Your task to perform on an android device: turn on priority inbox in the gmail app Image 0: 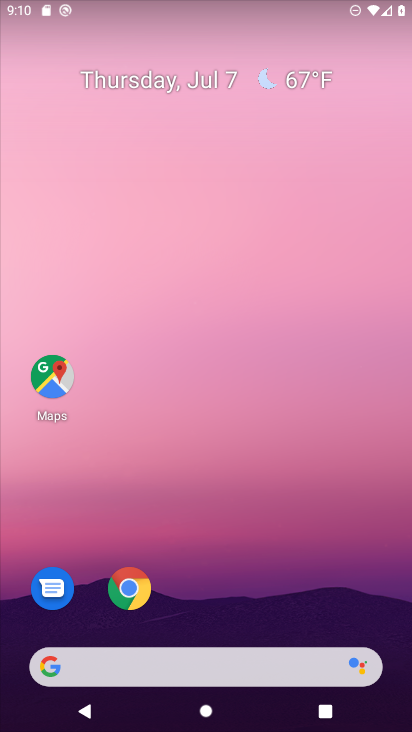
Step 0: drag from (248, 551) to (233, 24)
Your task to perform on an android device: turn on priority inbox in the gmail app Image 1: 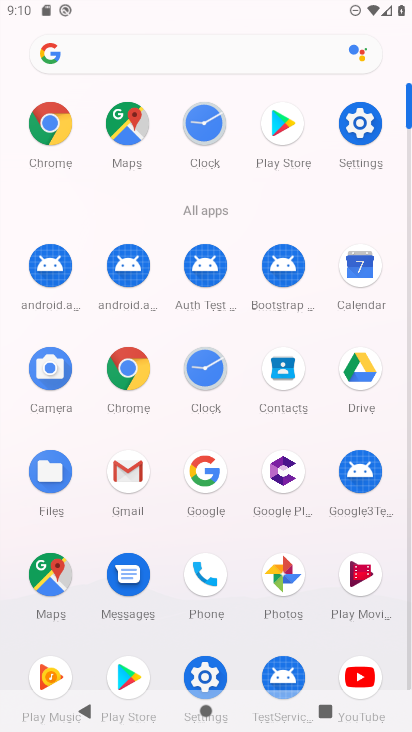
Step 1: click (125, 472)
Your task to perform on an android device: turn on priority inbox in the gmail app Image 2: 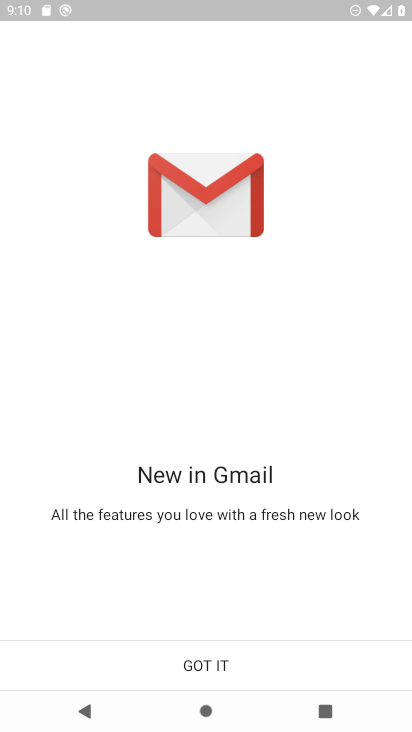
Step 2: click (201, 661)
Your task to perform on an android device: turn on priority inbox in the gmail app Image 3: 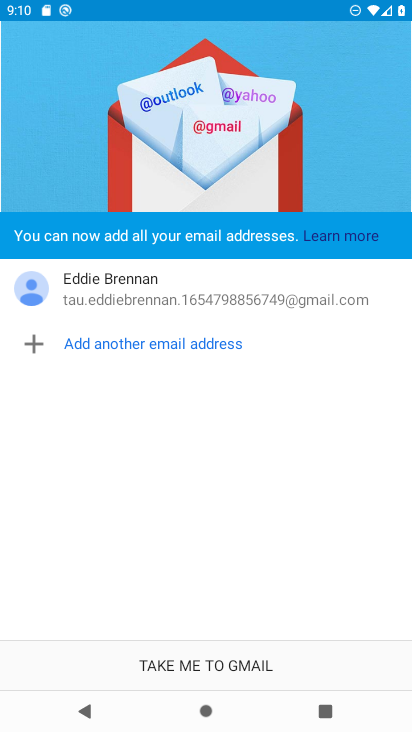
Step 3: click (186, 665)
Your task to perform on an android device: turn on priority inbox in the gmail app Image 4: 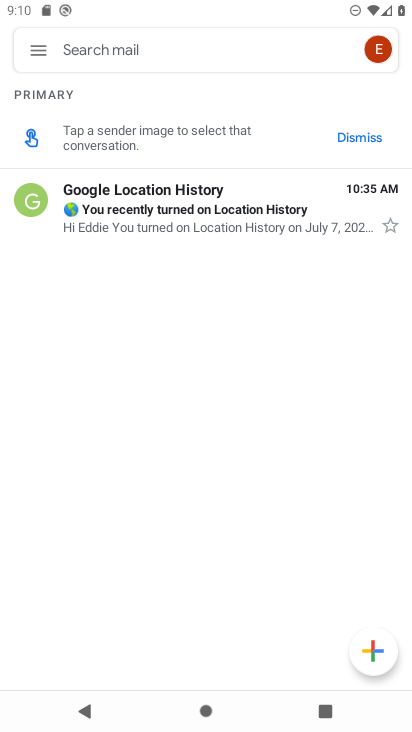
Step 4: click (45, 49)
Your task to perform on an android device: turn on priority inbox in the gmail app Image 5: 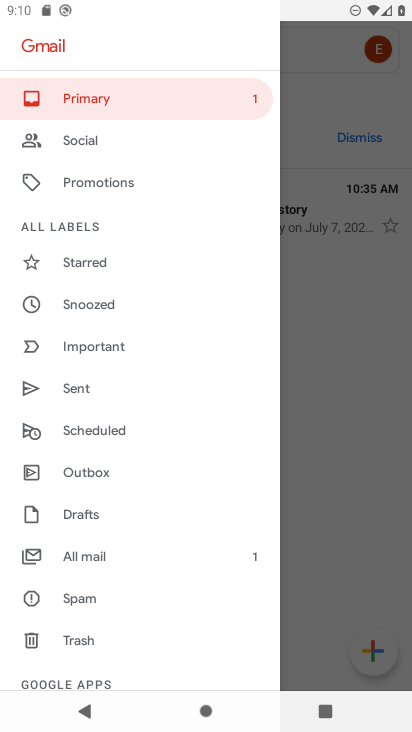
Step 5: drag from (77, 501) to (124, 386)
Your task to perform on an android device: turn on priority inbox in the gmail app Image 6: 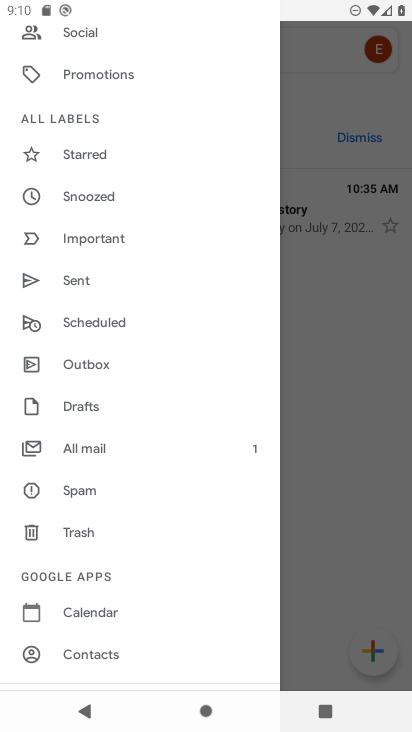
Step 6: drag from (110, 548) to (162, 423)
Your task to perform on an android device: turn on priority inbox in the gmail app Image 7: 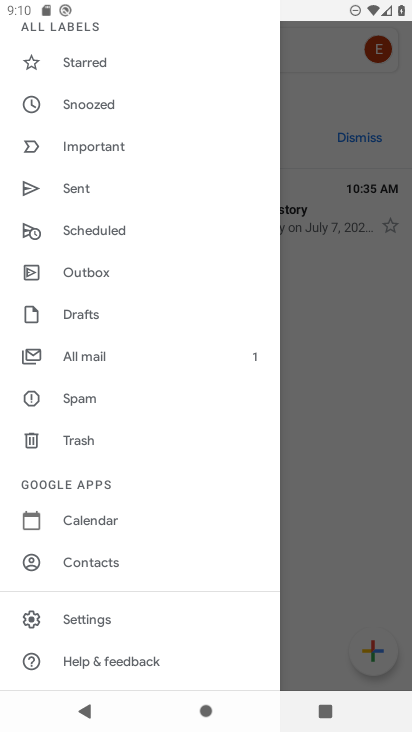
Step 7: click (108, 614)
Your task to perform on an android device: turn on priority inbox in the gmail app Image 8: 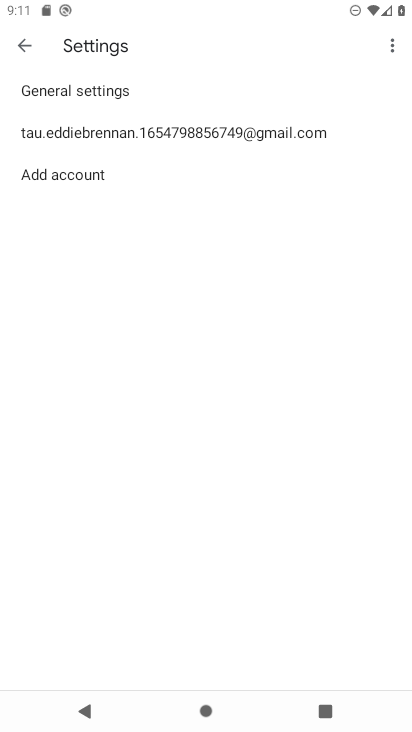
Step 8: click (219, 129)
Your task to perform on an android device: turn on priority inbox in the gmail app Image 9: 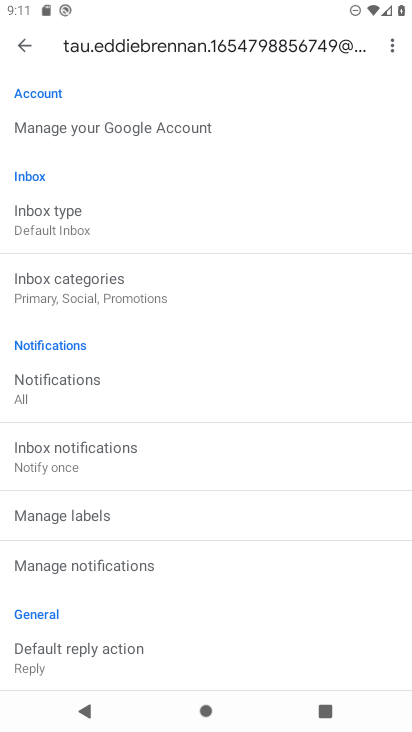
Step 9: drag from (132, 588) to (143, 492)
Your task to perform on an android device: turn on priority inbox in the gmail app Image 10: 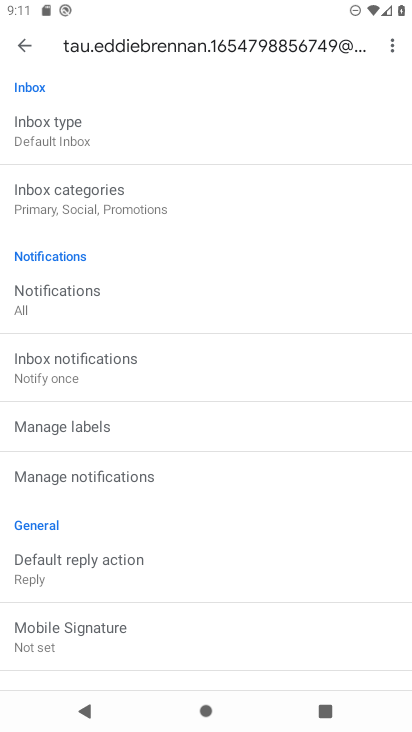
Step 10: drag from (96, 577) to (142, 471)
Your task to perform on an android device: turn on priority inbox in the gmail app Image 11: 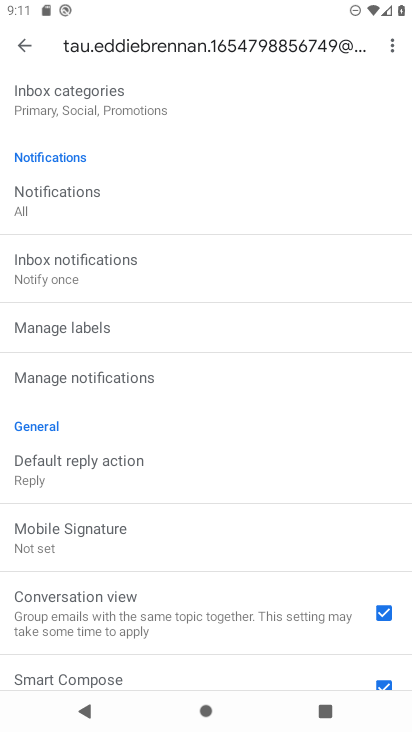
Step 11: drag from (88, 556) to (160, 456)
Your task to perform on an android device: turn on priority inbox in the gmail app Image 12: 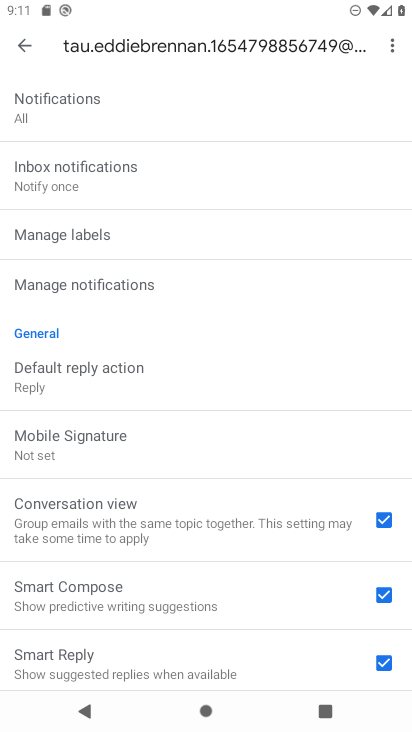
Step 12: drag from (102, 591) to (187, 472)
Your task to perform on an android device: turn on priority inbox in the gmail app Image 13: 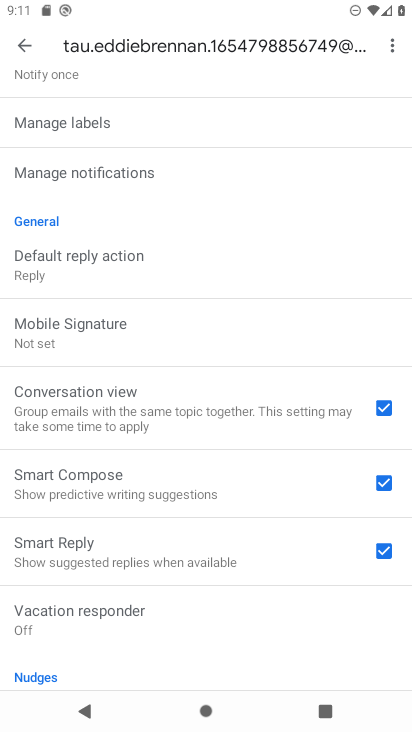
Step 13: drag from (88, 598) to (210, 449)
Your task to perform on an android device: turn on priority inbox in the gmail app Image 14: 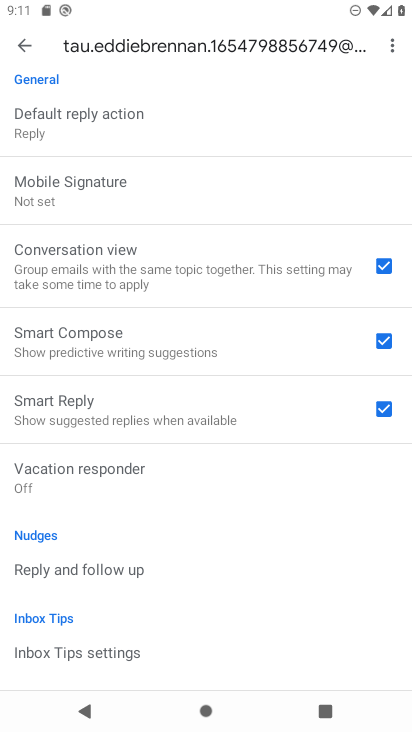
Step 14: drag from (84, 527) to (154, 406)
Your task to perform on an android device: turn on priority inbox in the gmail app Image 15: 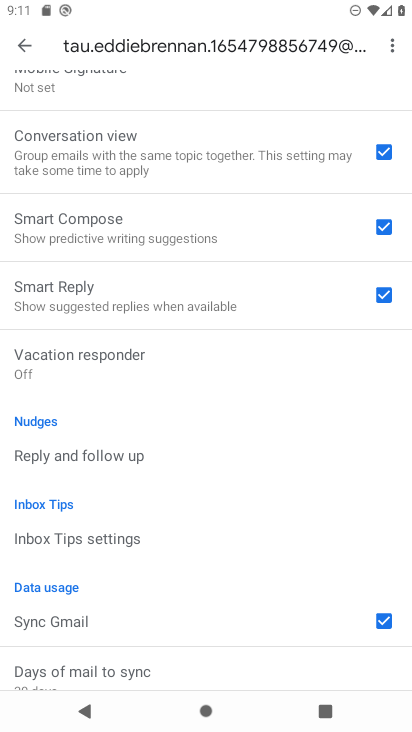
Step 15: drag from (208, 188) to (127, 536)
Your task to perform on an android device: turn on priority inbox in the gmail app Image 16: 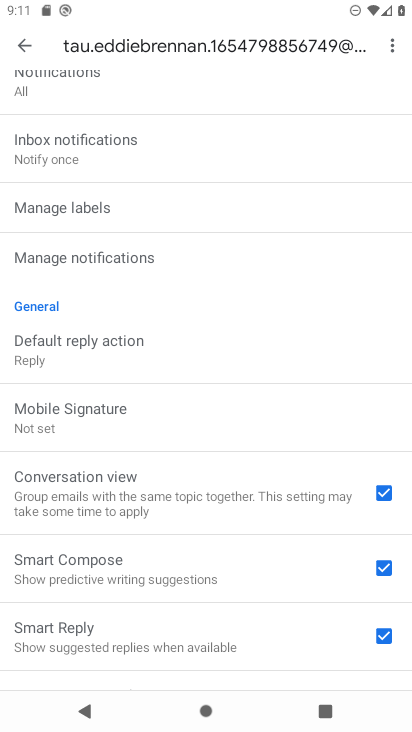
Step 16: drag from (157, 161) to (171, 405)
Your task to perform on an android device: turn on priority inbox in the gmail app Image 17: 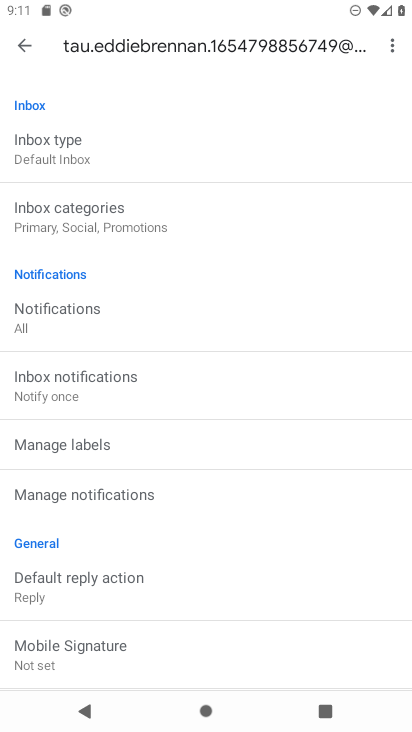
Step 17: click (74, 161)
Your task to perform on an android device: turn on priority inbox in the gmail app Image 18: 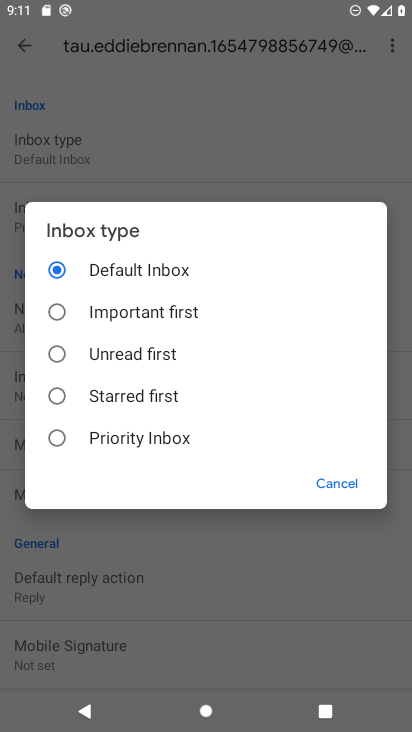
Step 18: click (63, 435)
Your task to perform on an android device: turn on priority inbox in the gmail app Image 19: 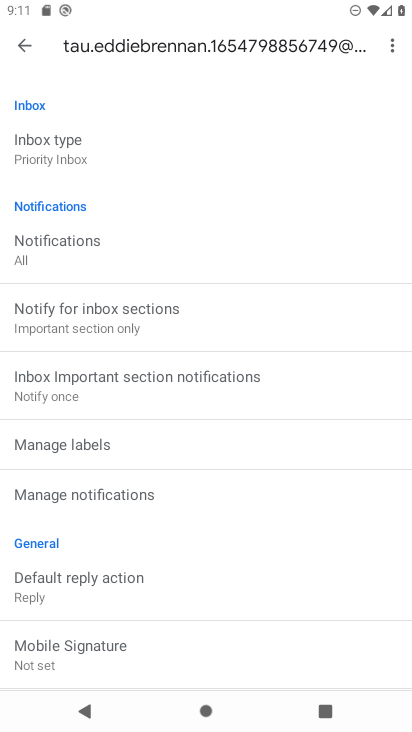
Step 19: task complete